Your task to perform on an android device: Open Maps and search for coffee Image 0: 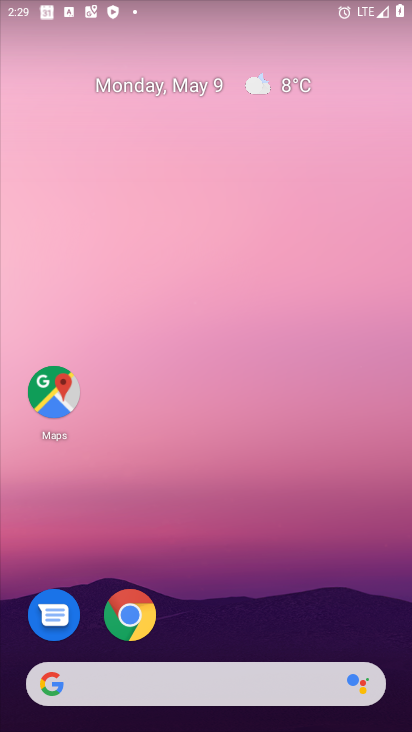
Step 0: click (50, 389)
Your task to perform on an android device: Open Maps and search for coffee Image 1: 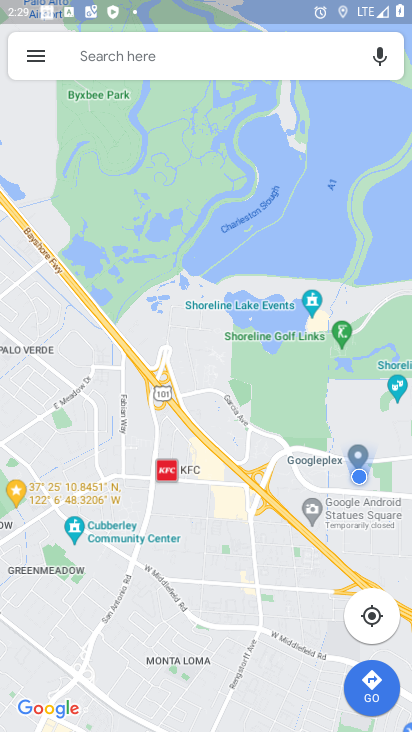
Step 1: click (119, 49)
Your task to perform on an android device: Open Maps and search for coffee Image 2: 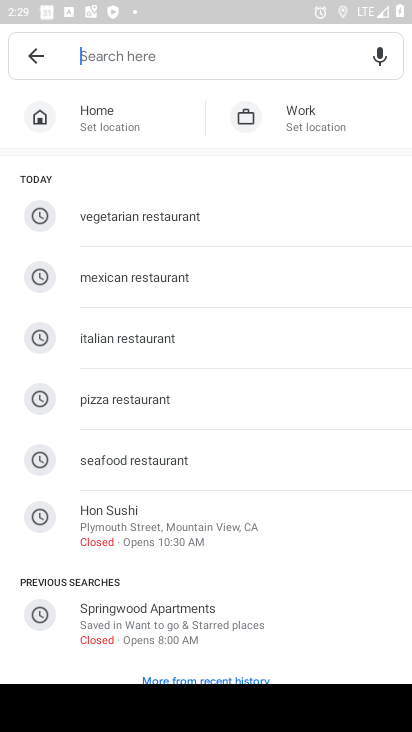
Step 2: type "coffee"
Your task to perform on an android device: Open Maps and search for coffee Image 3: 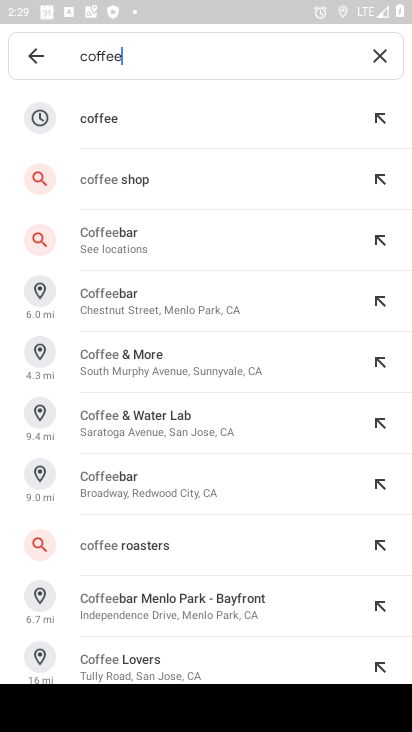
Step 3: click (94, 117)
Your task to perform on an android device: Open Maps and search for coffee Image 4: 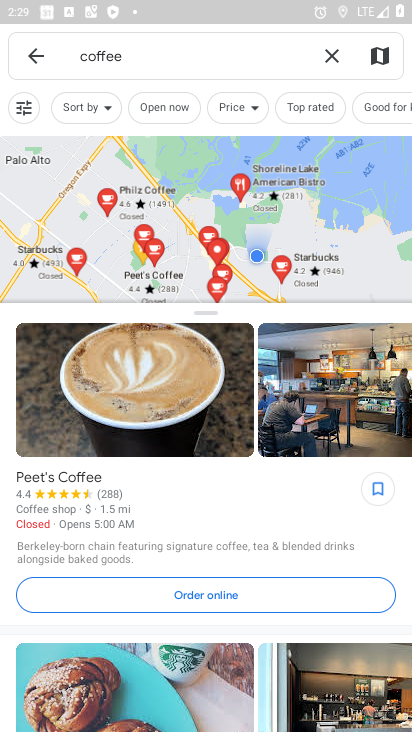
Step 4: task complete